Your task to perform on an android device: Go to notification settings Image 0: 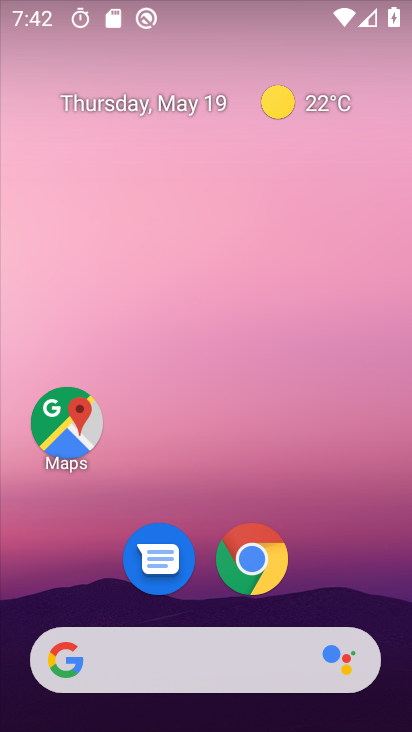
Step 0: drag from (205, 608) to (223, 56)
Your task to perform on an android device: Go to notification settings Image 1: 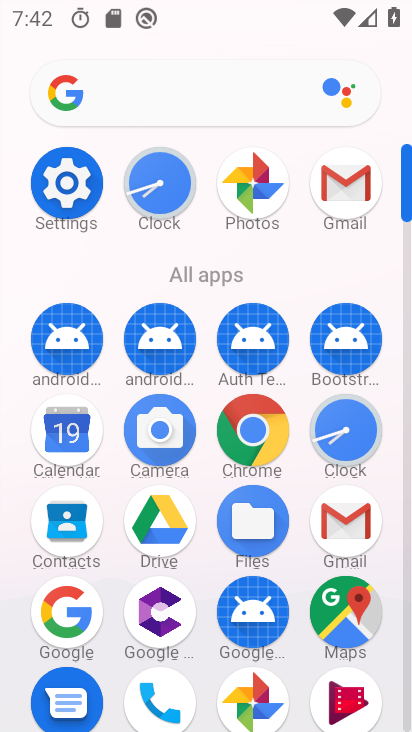
Step 1: click (56, 192)
Your task to perform on an android device: Go to notification settings Image 2: 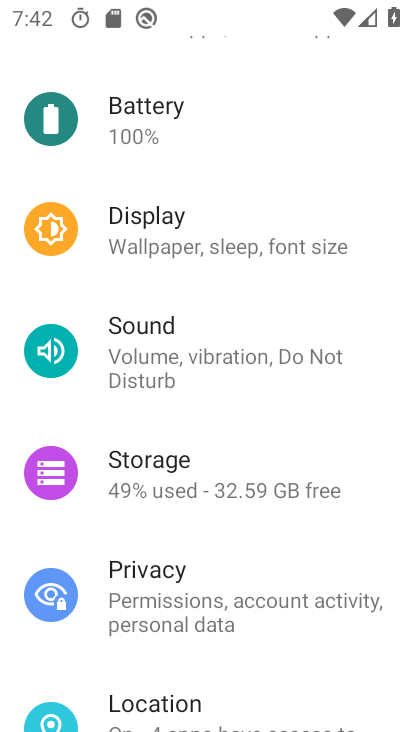
Step 2: drag from (189, 259) to (226, 617)
Your task to perform on an android device: Go to notification settings Image 3: 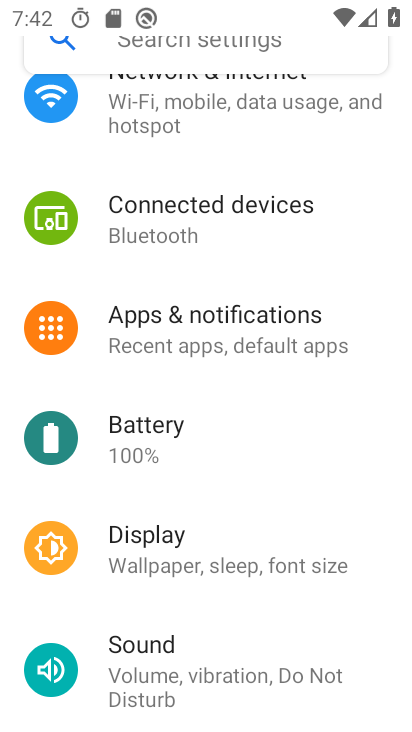
Step 3: click (145, 299)
Your task to perform on an android device: Go to notification settings Image 4: 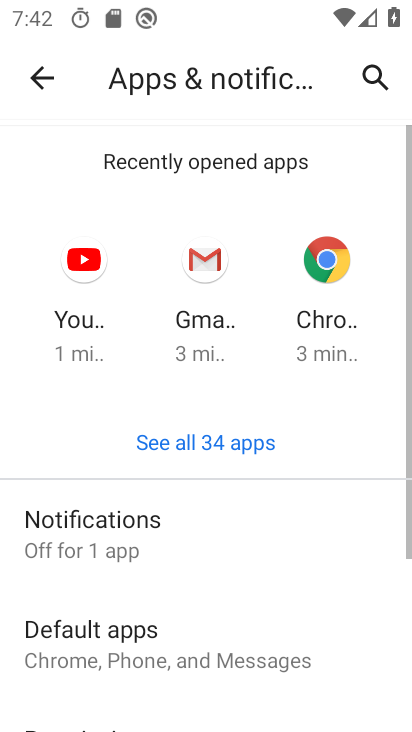
Step 4: click (142, 536)
Your task to perform on an android device: Go to notification settings Image 5: 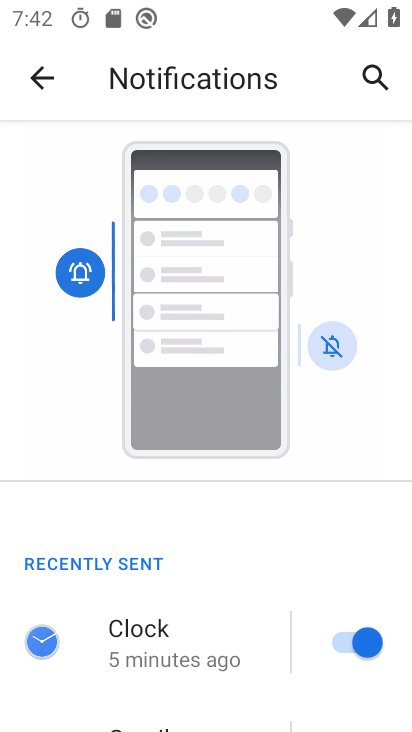
Step 5: task complete